Your task to perform on an android device: turn vacation reply on in the gmail app Image 0: 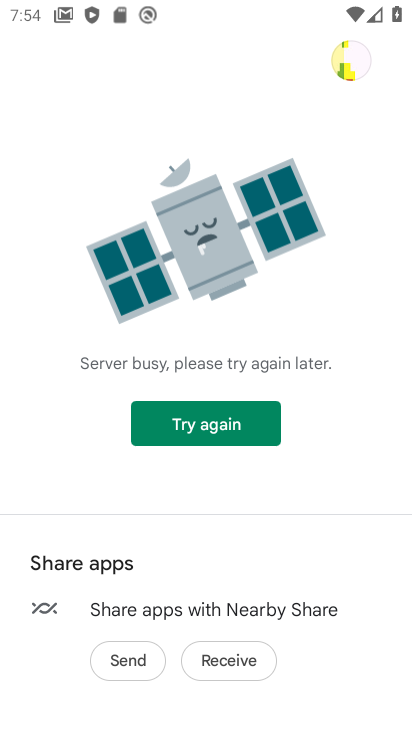
Step 0: press home button
Your task to perform on an android device: turn vacation reply on in the gmail app Image 1: 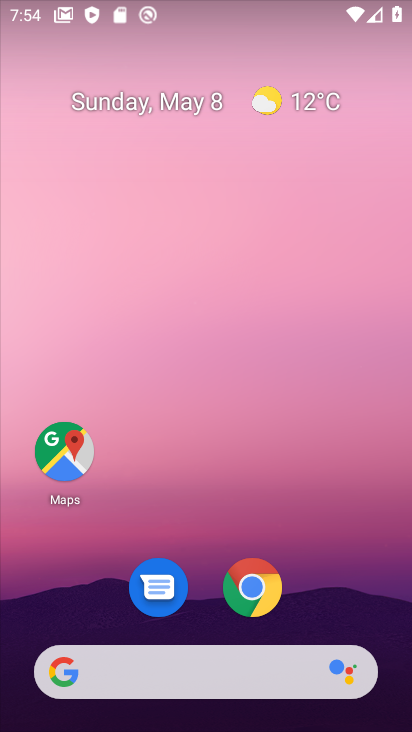
Step 1: drag from (310, 635) to (294, 104)
Your task to perform on an android device: turn vacation reply on in the gmail app Image 2: 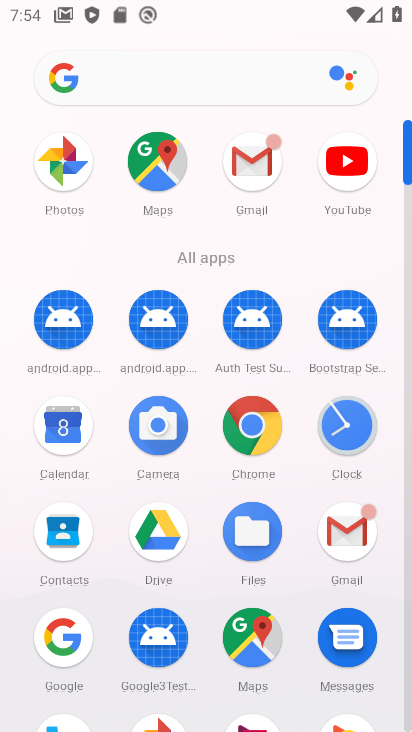
Step 2: click (258, 157)
Your task to perform on an android device: turn vacation reply on in the gmail app Image 3: 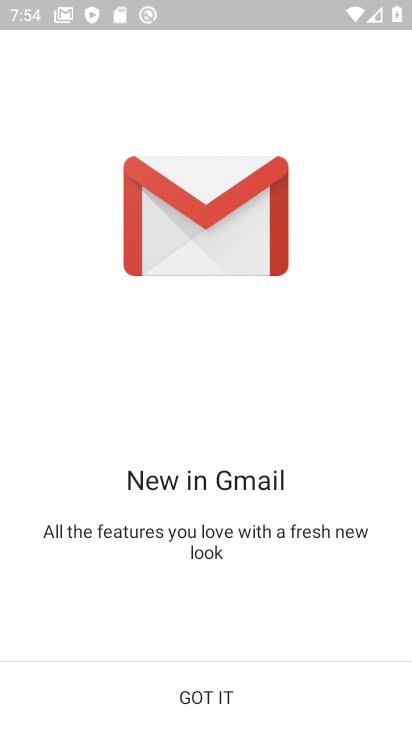
Step 3: click (160, 686)
Your task to perform on an android device: turn vacation reply on in the gmail app Image 4: 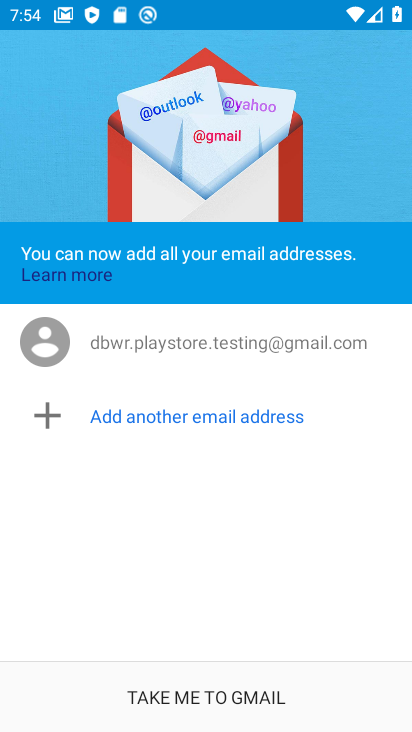
Step 4: click (233, 698)
Your task to perform on an android device: turn vacation reply on in the gmail app Image 5: 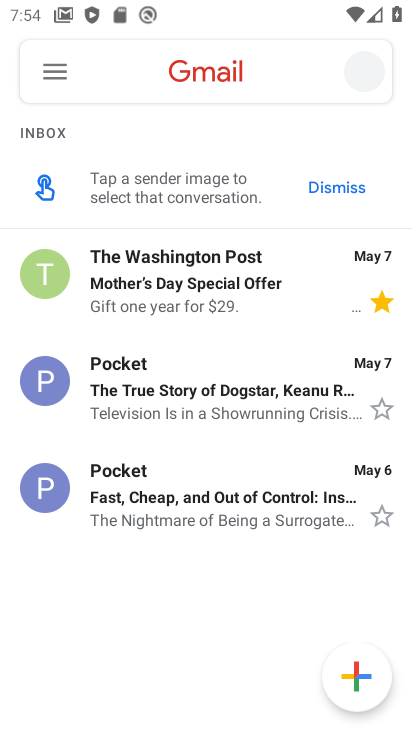
Step 5: click (56, 93)
Your task to perform on an android device: turn vacation reply on in the gmail app Image 6: 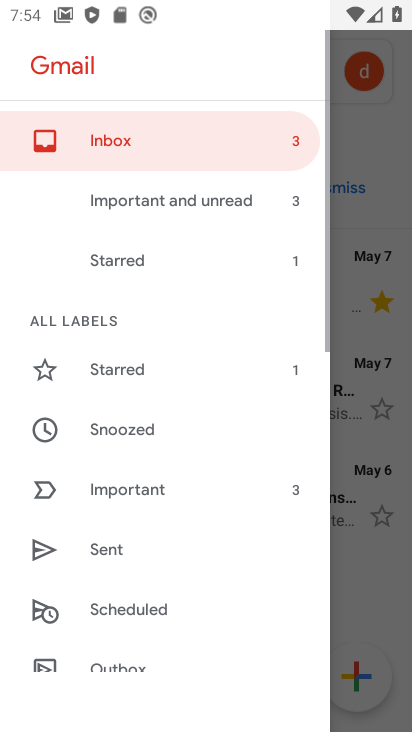
Step 6: drag from (168, 636) to (179, 131)
Your task to perform on an android device: turn vacation reply on in the gmail app Image 7: 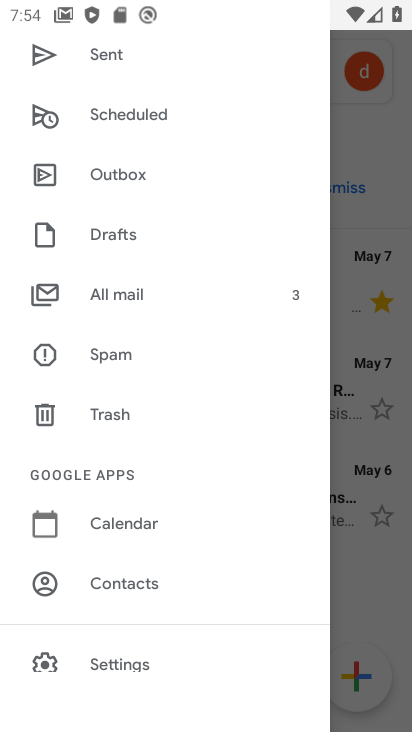
Step 7: click (161, 667)
Your task to perform on an android device: turn vacation reply on in the gmail app Image 8: 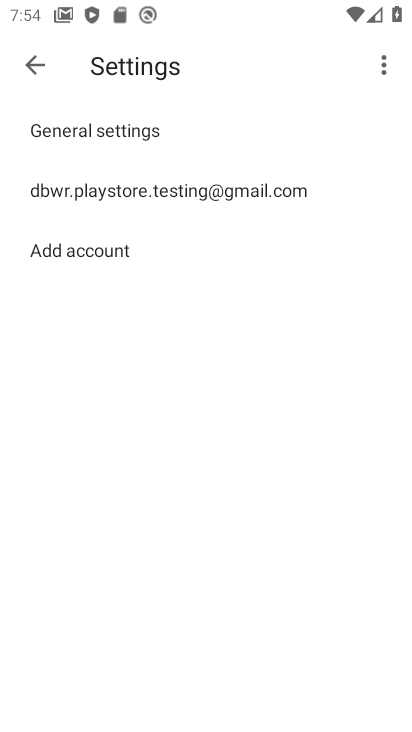
Step 8: click (225, 190)
Your task to perform on an android device: turn vacation reply on in the gmail app Image 9: 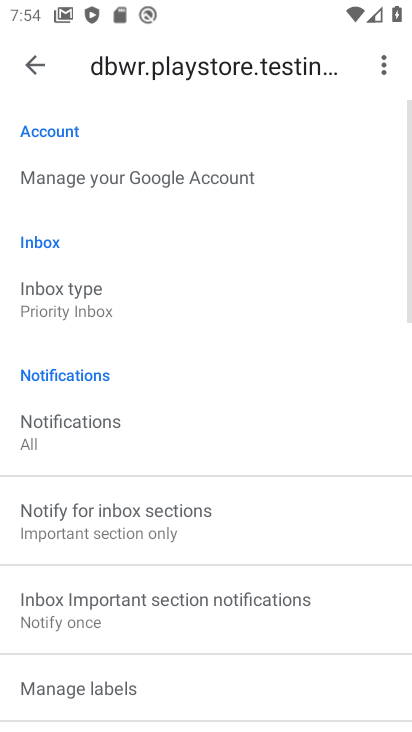
Step 9: drag from (191, 550) to (173, 7)
Your task to perform on an android device: turn vacation reply on in the gmail app Image 10: 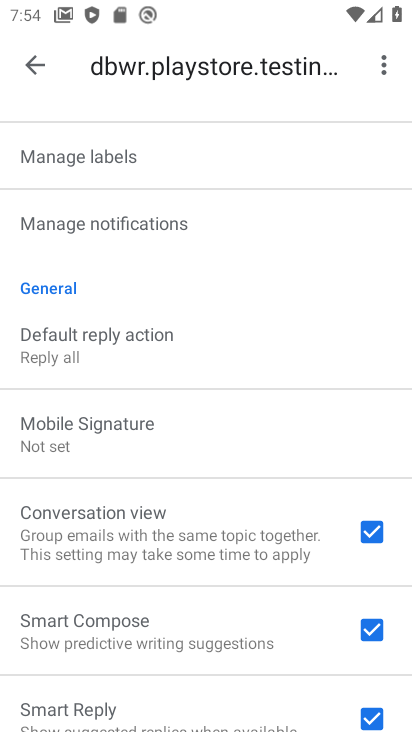
Step 10: drag from (229, 601) to (268, 192)
Your task to perform on an android device: turn vacation reply on in the gmail app Image 11: 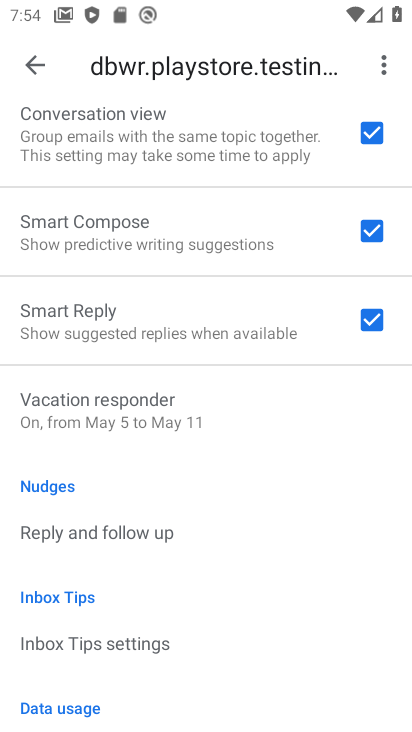
Step 11: click (215, 396)
Your task to perform on an android device: turn vacation reply on in the gmail app Image 12: 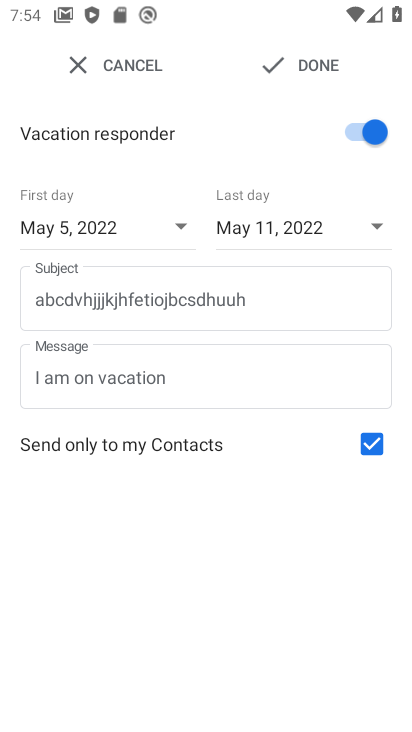
Step 12: click (328, 77)
Your task to perform on an android device: turn vacation reply on in the gmail app Image 13: 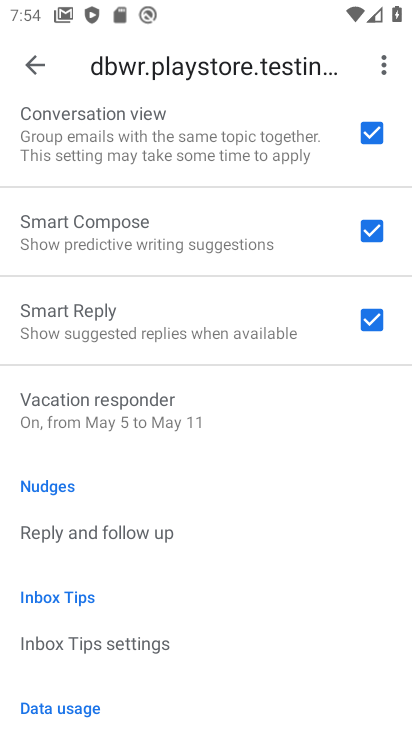
Step 13: task complete